Your task to perform on an android device: Go to notification settings Image 0: 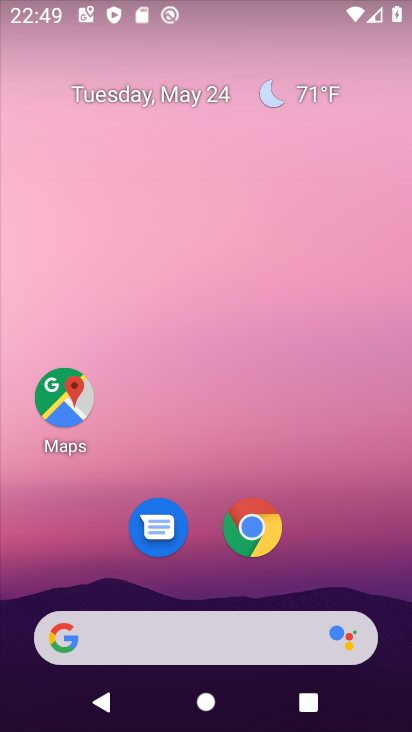
Step 0: drag from (218, 578) to (174, 60)
Your task to perform on an android device: Go to notification settings Image 1: 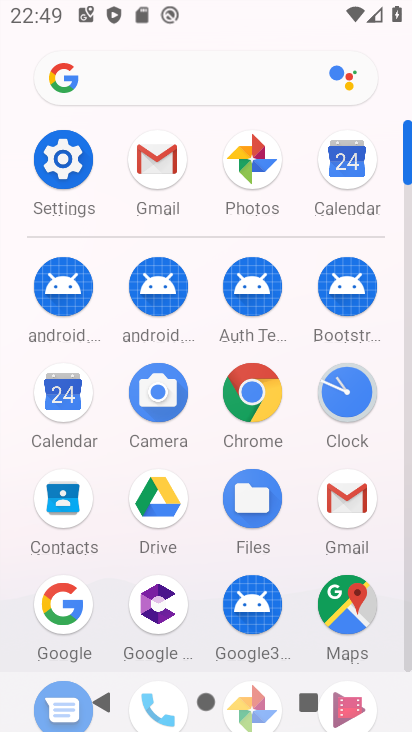
Step 1: click (77, 172)
Your task to perform on an android device: Go to notification settings Image 2: 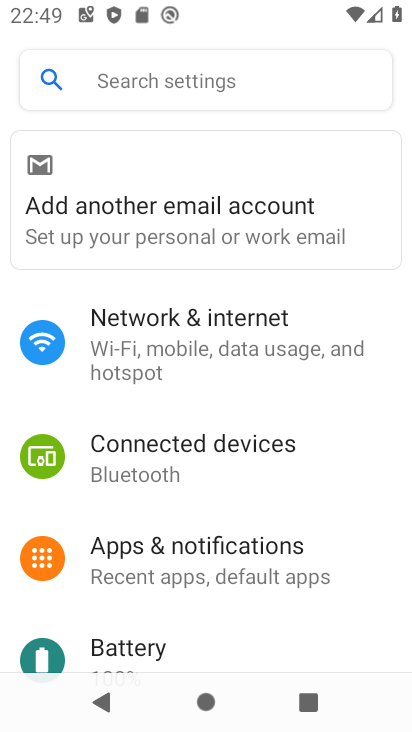
Step 2: click (214, 556)
Your task to perform on an android device: Go to notification settings Image 3: 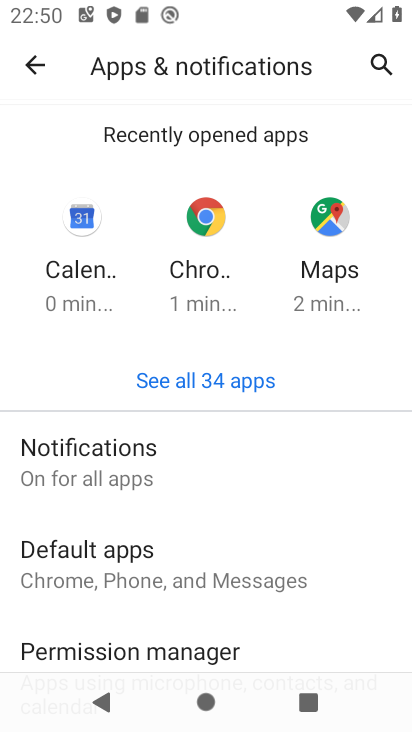
Step 3: click (96, 475)
Your task to perform on an android device: Go to notification settings Image 4: 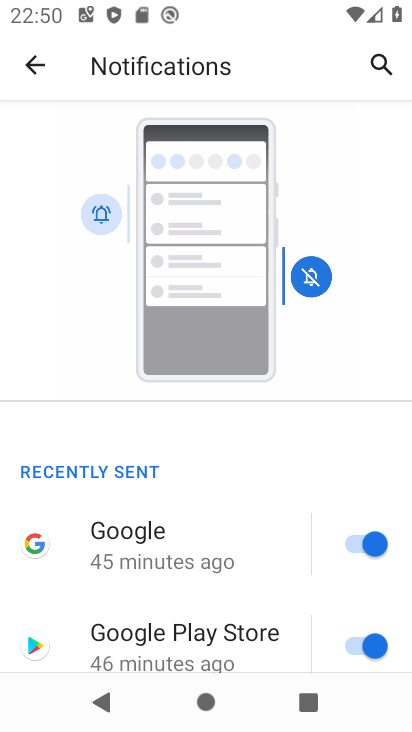
Step 4: task complete